Your task to perform on an android device: Search for Italian restaurants on Maps Image 0: 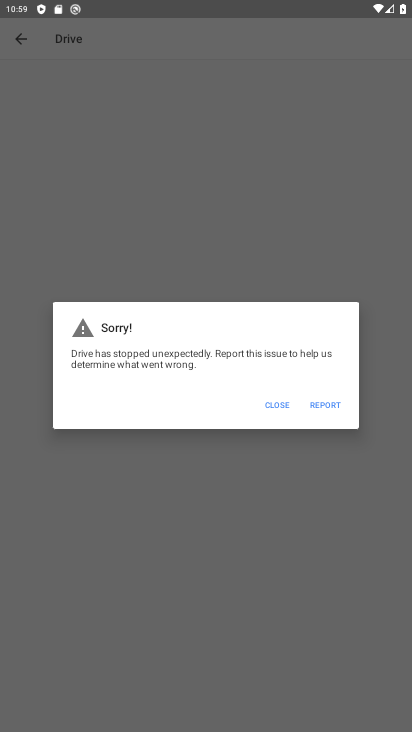
Step 0: press home button
Your task to perform on an android device: Search for Italian restaurants on Maps Image 1: 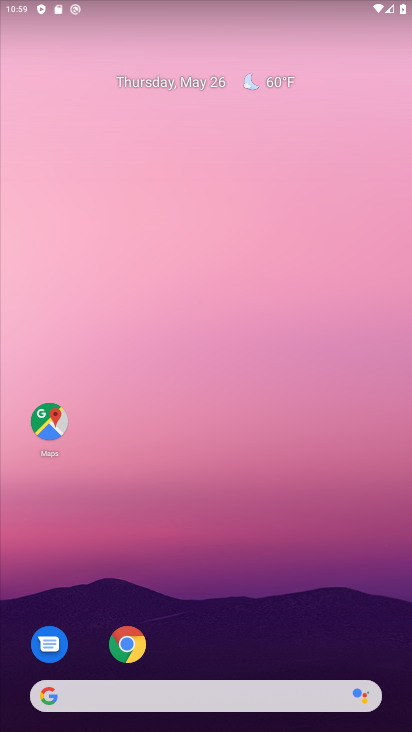
Step 1: click (39, 413)
Your task to perform on an android device: Search for Italian restaurants on Maps Image 2: 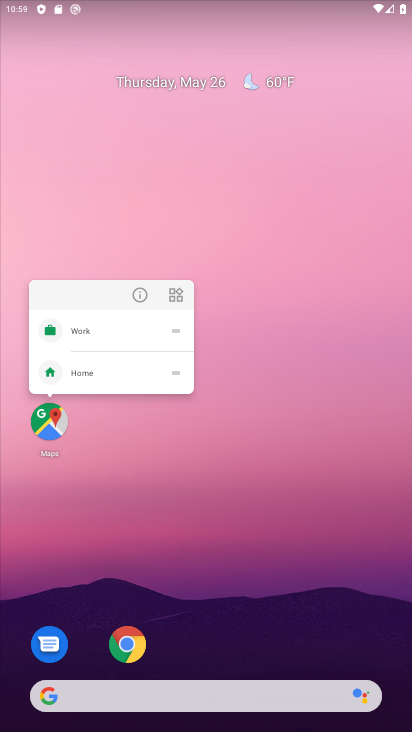
Step 2: click (54, 425)
Your task to perform on an android device: Search for Italian restaurants on Maps Image 3: 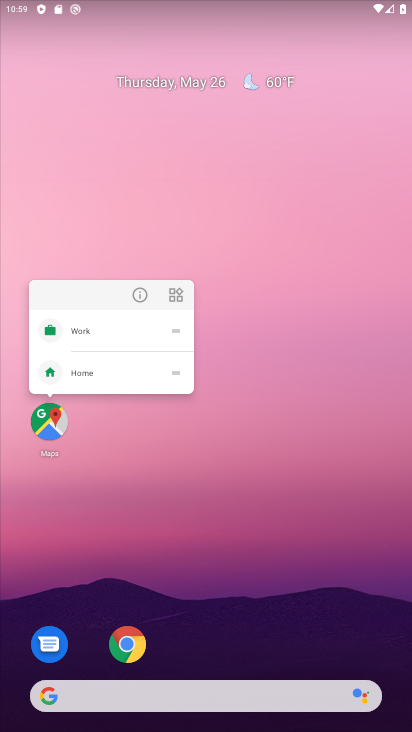
Step 3: click (54, 425)
Your task to perform on an android device: Search for Italian restaurants on Maps Image 4: 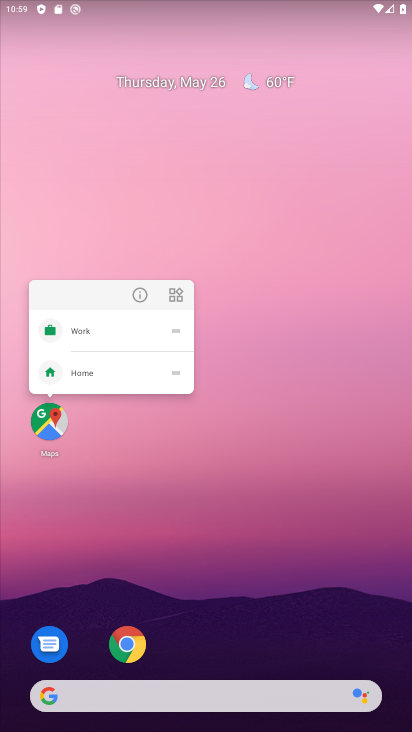
Step 4: click (54, 425)
Your task to perform on an android device: Search for Italian restaurants on Maps Image 5: 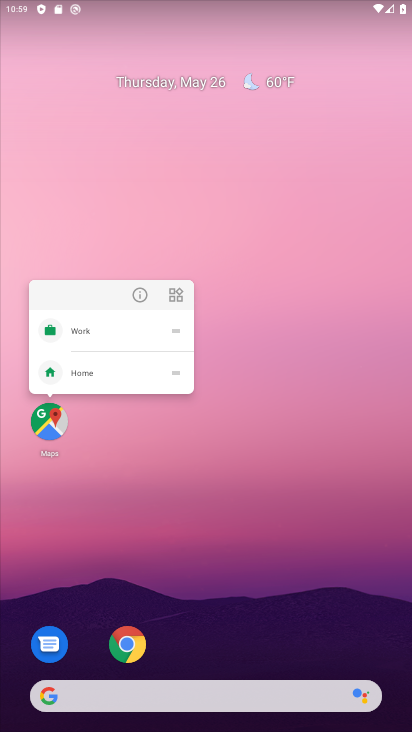
Step 5: click (50, 434)
Your task to perform on an android device: Search for Italian restaurants on Maps Image 6: 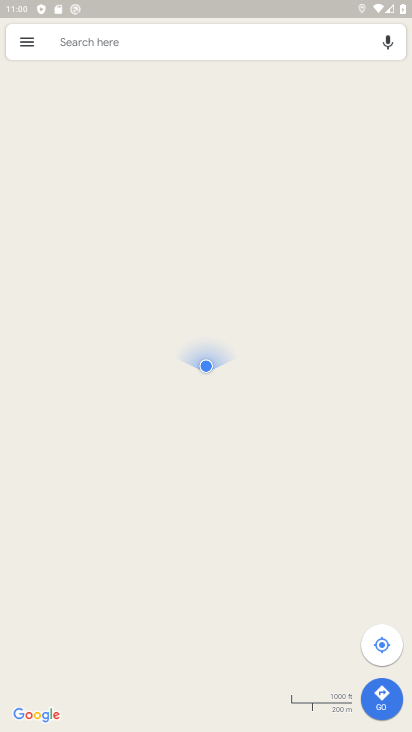
Step 6: click (126, 50)
Your task to perform on an android device: Search for Italian restaurants on Maps Image 7: 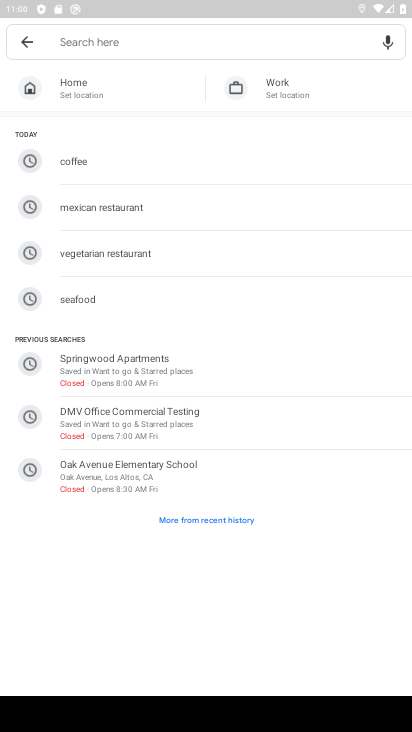
Step 7: type "Italian restaurants"
Your task to perform on an android device: Search for Italian restaurants on Maps Image 8: 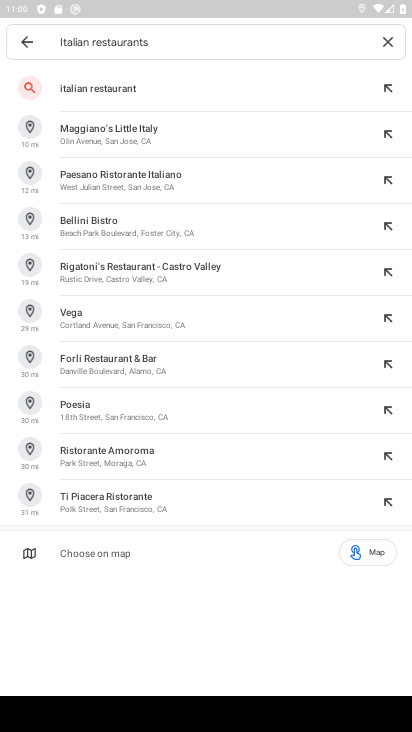
Step 8: click (167, 93)
Your task to perform on an android device: Search for Italian restaurants on Maps Image 9: 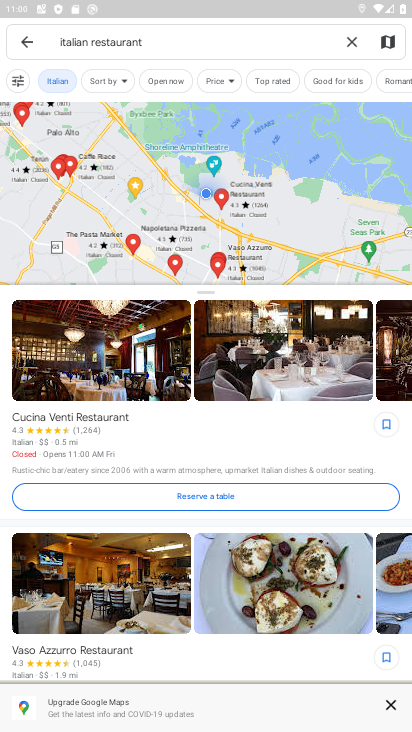
Step 9: task complete